Your task to perform on an android device: make emails show in primary in the gmail app Image 0: 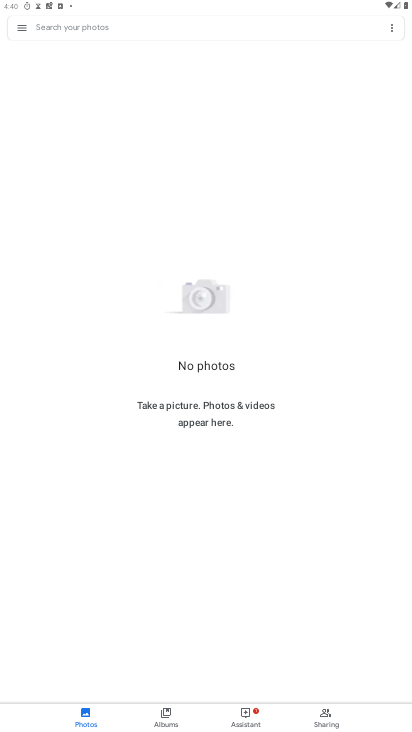
Step 0: press home button
Your task to perform on an android device: make emails show in primary in the gmail app Image 1: 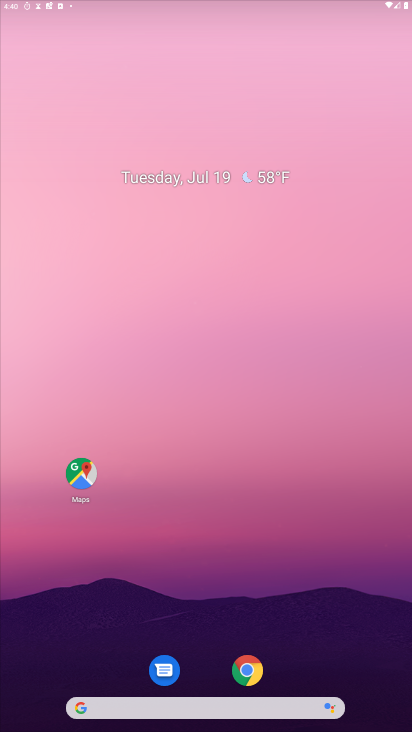
Step 1: drag from (173, 713) to (179, 0)
Your task to perform on an android device: make emails show in primary in the gmail app Image 2: 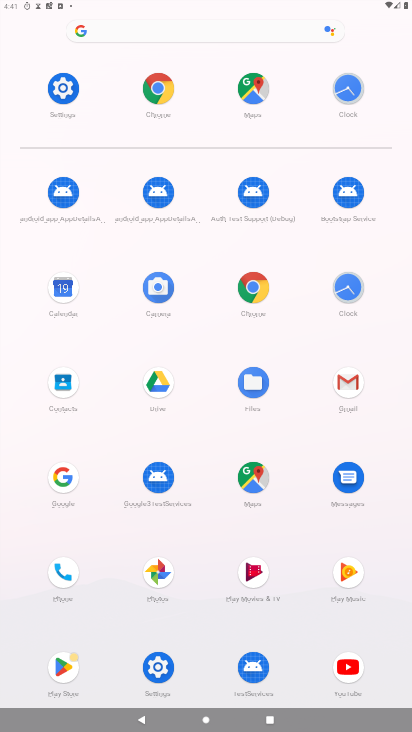
Step 2: click (353, 384)
Your task to perform on an android device: make emails show in primary in the gmail app Image 3: 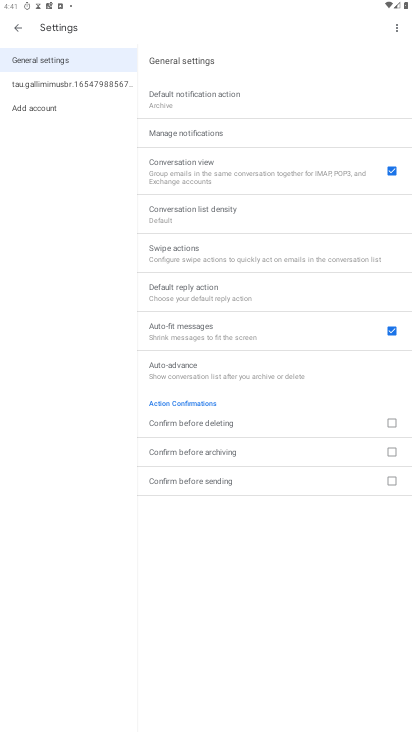
Step 3: press back button
Your task to perform on an android device: make emails show in primary in the gmail app Image 4: 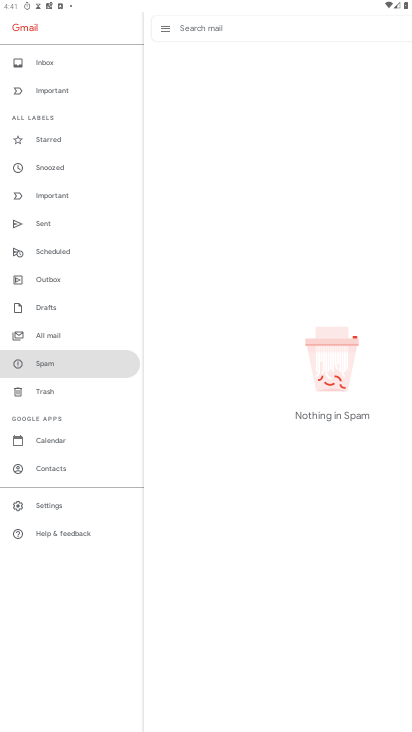
Step 4: click (51, 501)
Your task to perform on an android device: make emails show in primary in the gmail app Image 5: 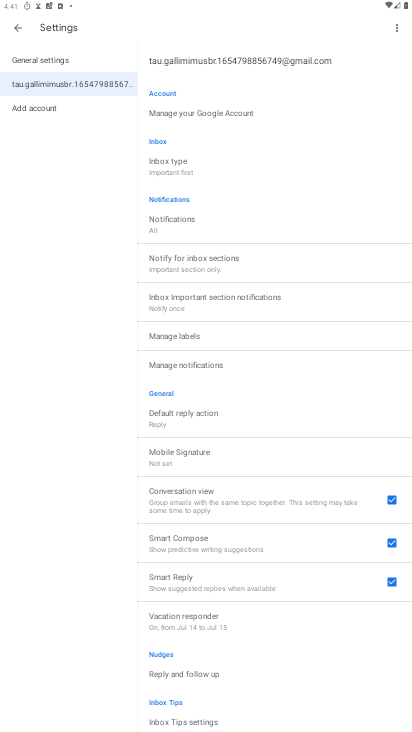
Step 5: click (171, 173)
Your task to perform on an android device: make emails show in primary in the gmail app Image 6: 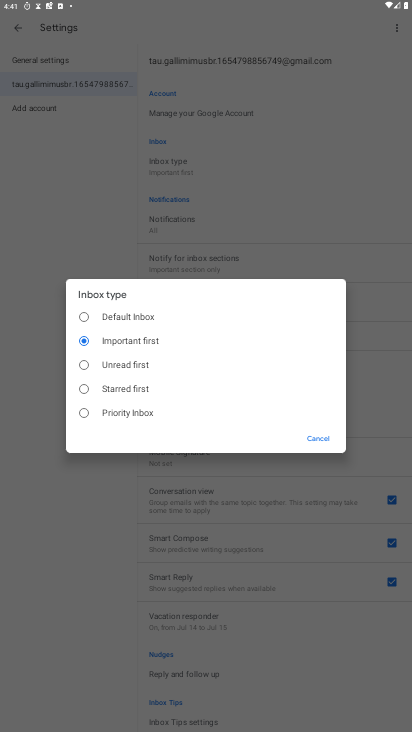
Step 6: click (89, 316)
Your task to perform on an android device: make emails show in primary in the gmail app Image 7: 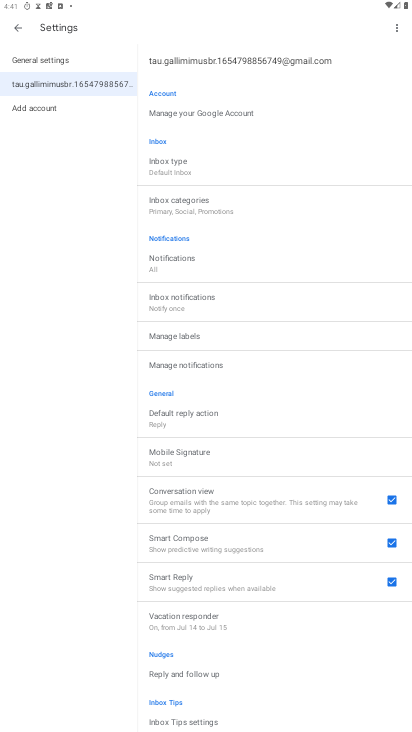
Step 7: press back button
Your task to perform on an android device: make emails show in primary in the gmail app Image 8: 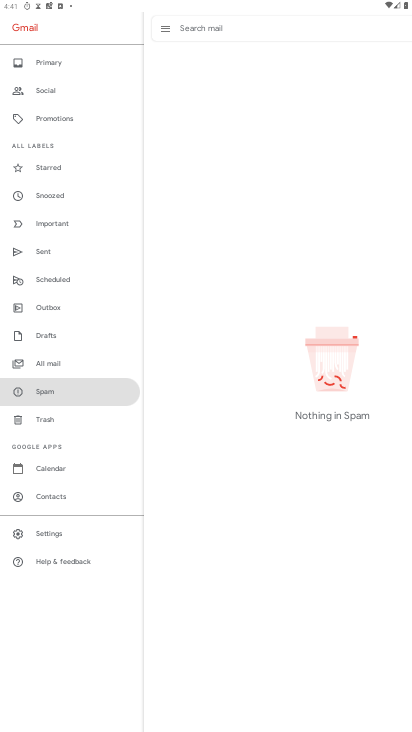
Step 8: click (68, 60)
Your task to perform on an android device: make emails show in primary in the gmail app Image 9: 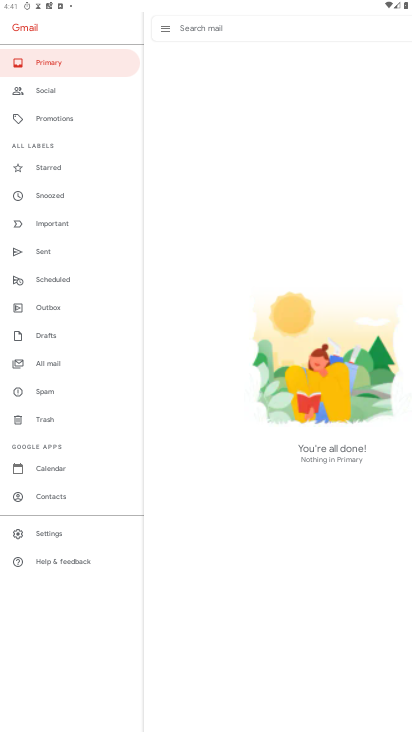
Step 9: task complete